Your task to perform on an android device: search for starred emails in the gmail app Image 0: 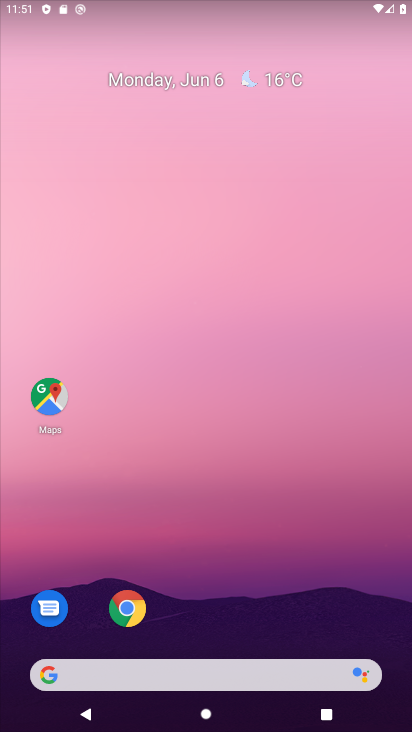
Step 0: drag from (258, 624) to (246, 36)
Your task to perform on an android device: search for starred emails in the gmail app Image 1: 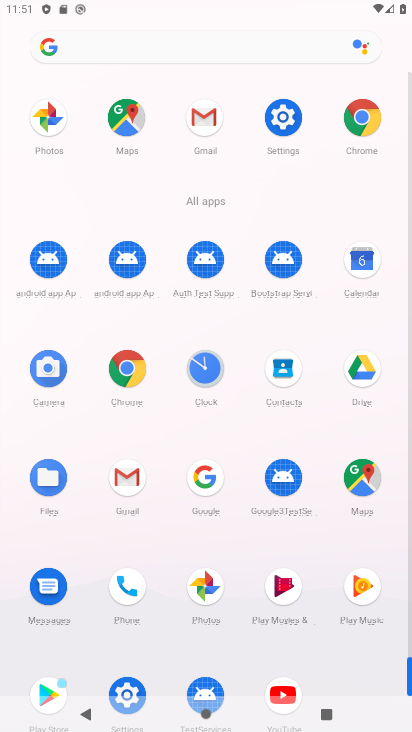
Step 1: click (121, 477)
Your task to perform on an android device: search for starred emails in the gmail app Image 2: 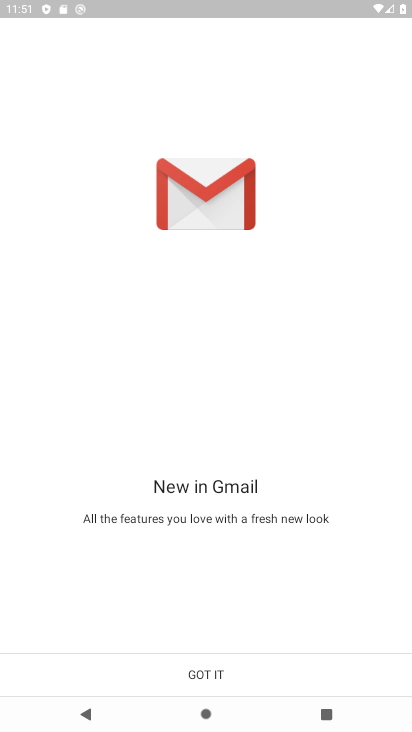
Step 2: click (263, 669)
Your task to perform on an android device: search for starred emails in the gmail app Image 3: 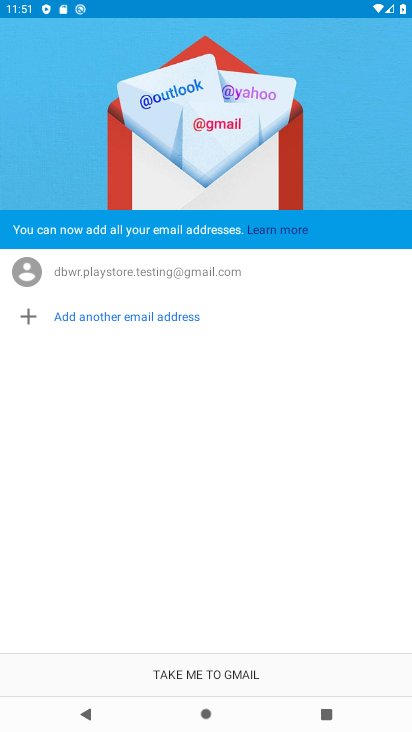
Step 3: click (267, 671)
Your task to perform on an android device: search for starred emails in the gmail app Image 4: 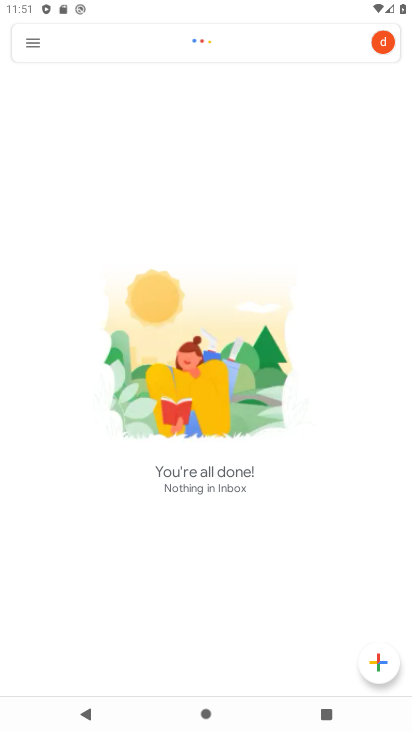
Step 4: click (32, 42)
Your task to perform on an android device: search for starred emails in the gmail app Image 5: 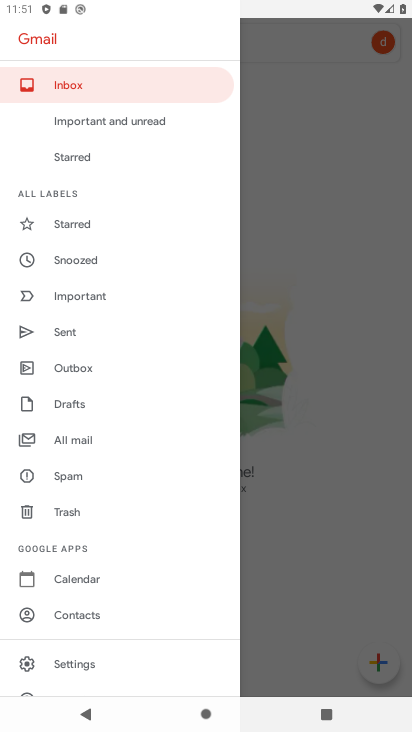
Step 5: click (80, 223)
Your task to perform on an android device: search for starred emails in the gmail app Image 6: 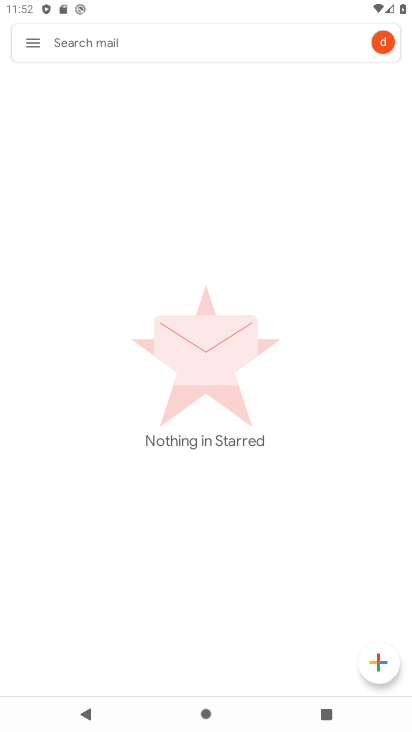
Step 6: task complete